Your task to perform on an android device: Open calendar and show me the first week of next month Image 0: 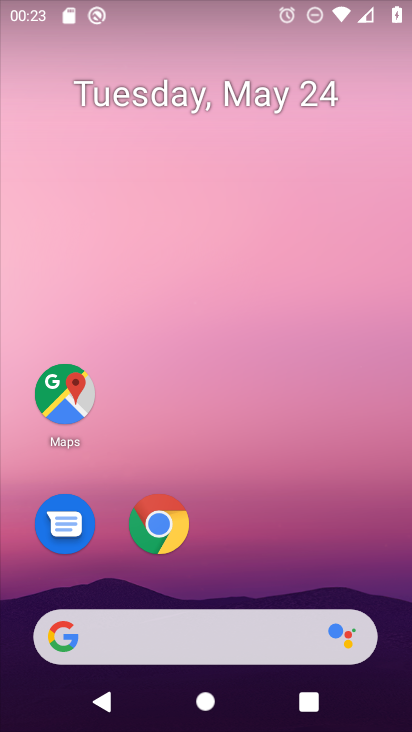
Step 0: drag from (248, 577) to (248, 227)
Your task to perform on an android device: Open calendar and show me the first week of next month Image 1: 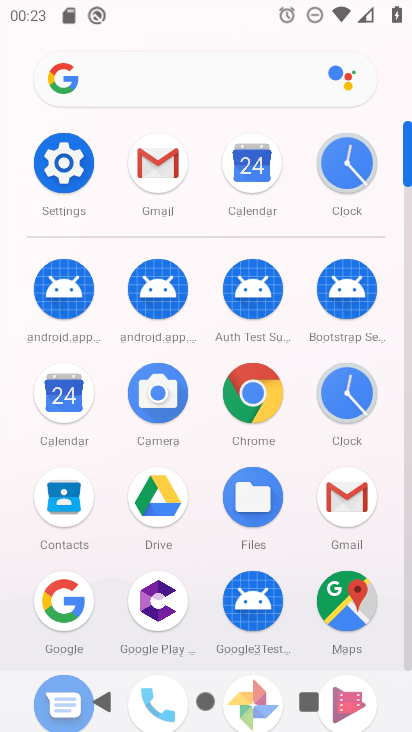
Step 1: click (242, 171)
Your task to perform on an android device: Open calendar and show me the first week of next month Image 2: 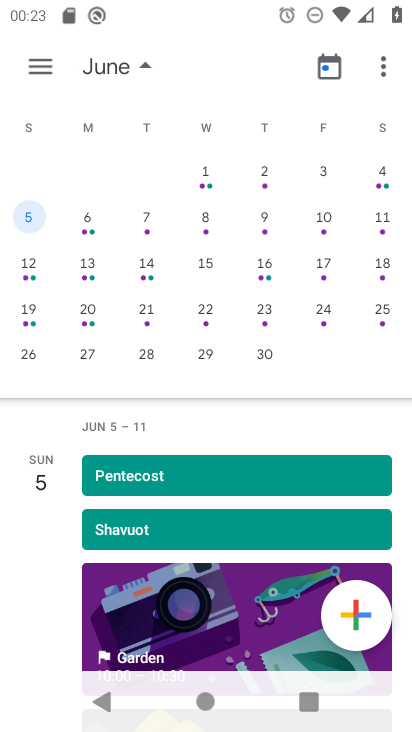
Step 2: drag from (339, 230) to (4, 234)
Your task to perform on an android device: Open calendar and show me the first week of next month Image 3: 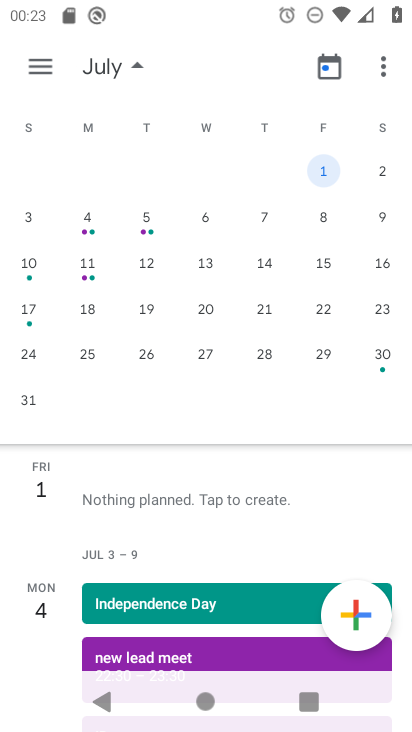
Step 3: click (321, 180)
Your task to perform on an android device: Open calendar and show me the first week of next month Image 4: 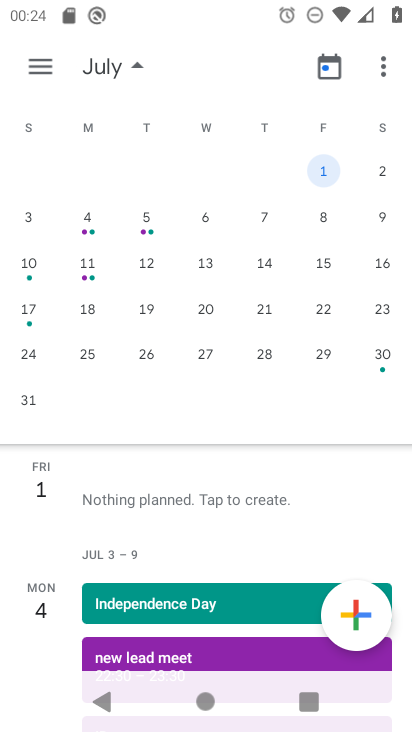
Step 4: click (317, 159)
Your task to perform on an android device: Open calendar and show me the first week of next month Image 5: 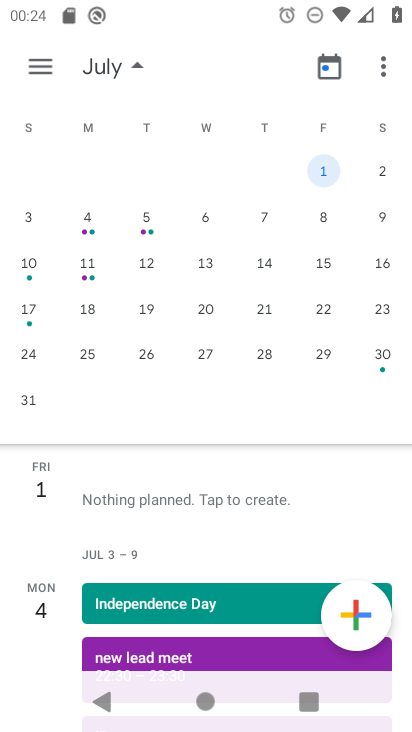
Step 5: task complete